Your task to perform on an android device: Find coffee shops on Maps Image 0: 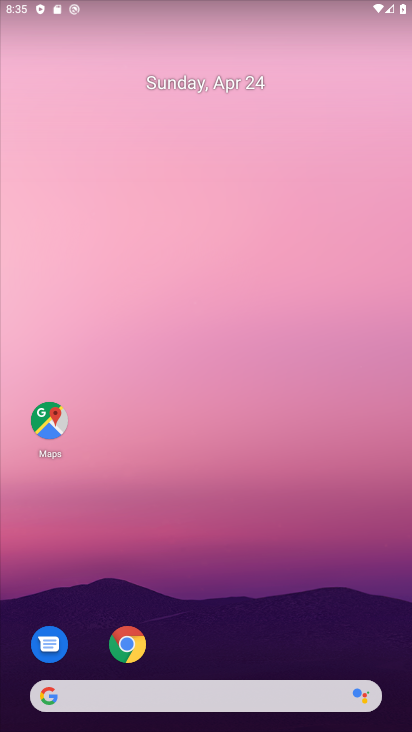
Step 0: click (46, 412)
Your task to perform on an android device: Find coffee shops on Maps Image 1: 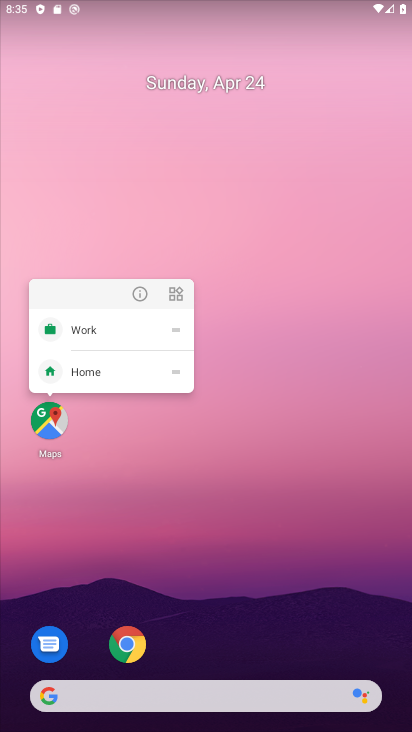
Step 1: click (61, 413)
Your task to perform on an android device: Find coffee shops on Maps Image 2: 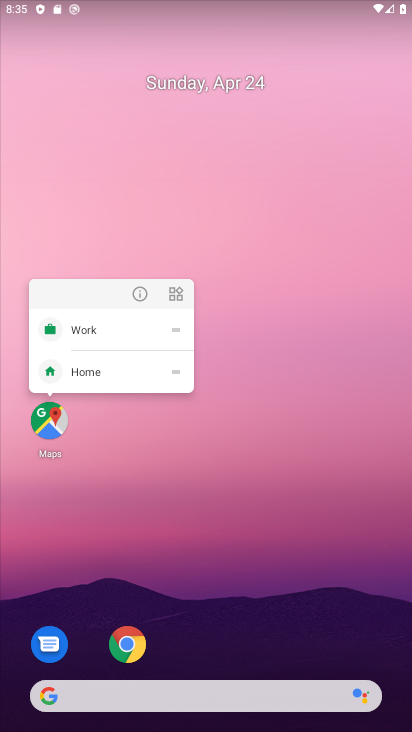
Step 2: click (58, 440)
Your task to perform on an android device: Find coffee shops on Maps Image 3: 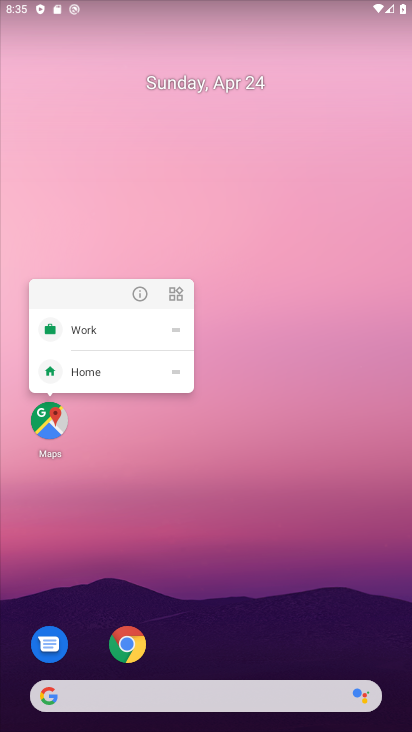
Step 3: click (52, 431)
Your task to perform on an android device: Find coffee shops on Maps Image 4: 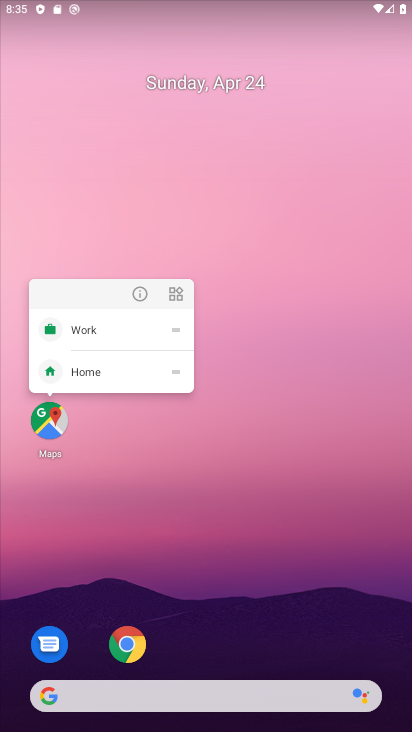
Step 4: click (53, 430)
Your task to perform on an android device: Find coffee shops on Maps Image 5: 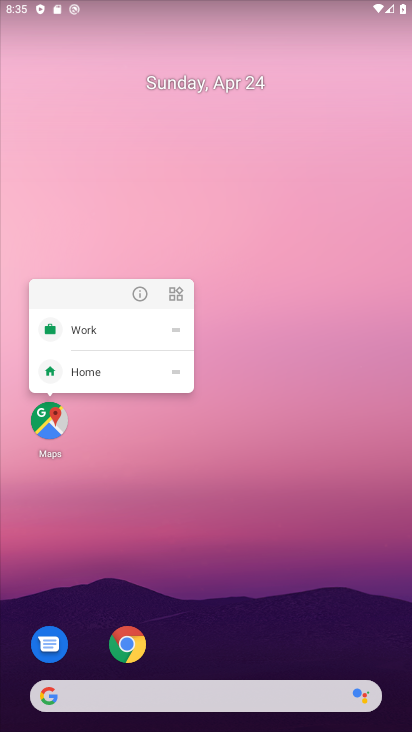
Step 5: click (57, 426)
Your task to perform on an android device: Find coffee shops on Maps Image 6: 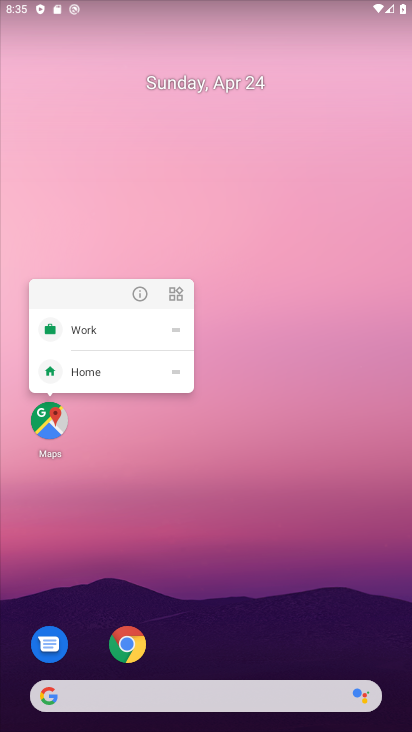
Step 6: drag from (251, 676) to (348, 87)
Your task to perform on an android device: Find coffee shops on Maps Image 7: 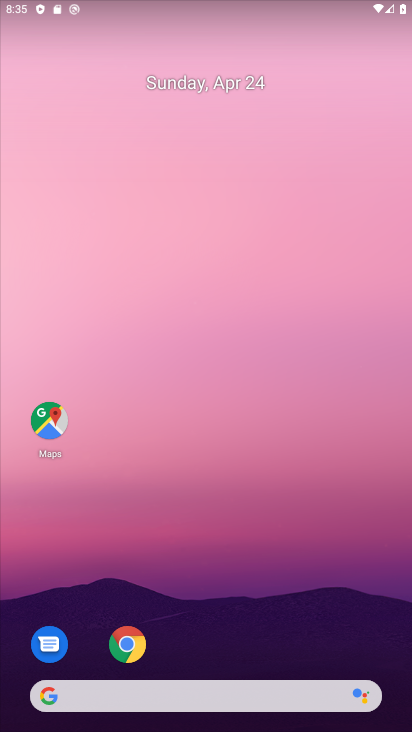
Step 7: drag from (218, 634) to (359, 38)
Your task to perform on an android device: Find coffee shops on Maps Image 8: 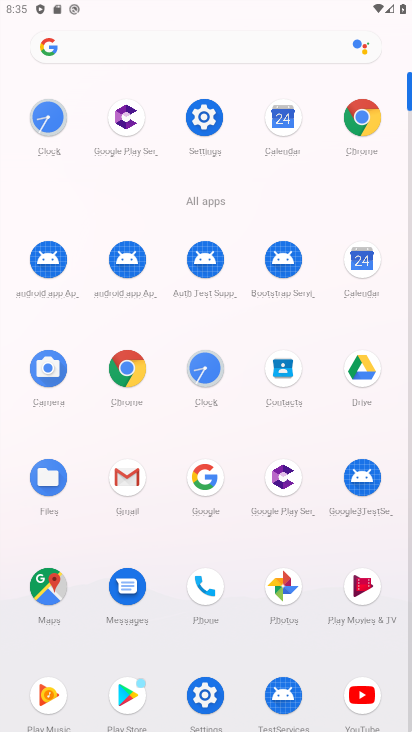
Step 8: click (47, 589)
Your task to perform on an android device: Find coffee shops on Maps Image 9: 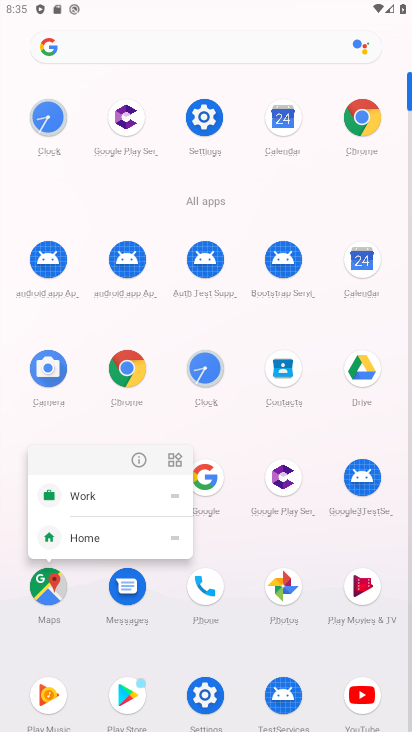
Step 9: click (51, 577)
Your task to perform on an android device: Find coffee shops on Maps Image 10: 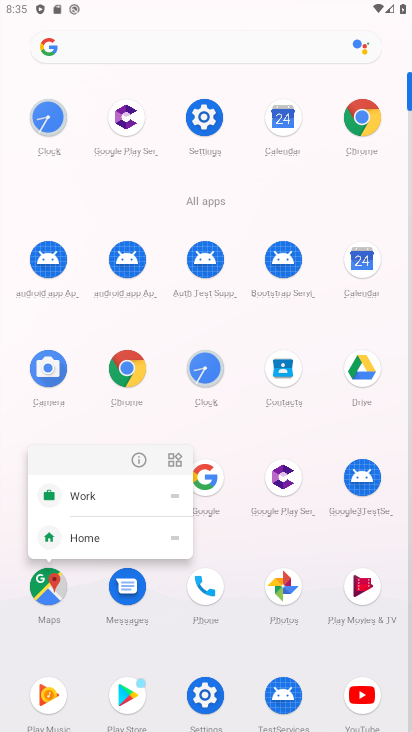
Step 10: click (55, 596)
Your task to perform on an android device: Find coffee shops on Maps Image 11: 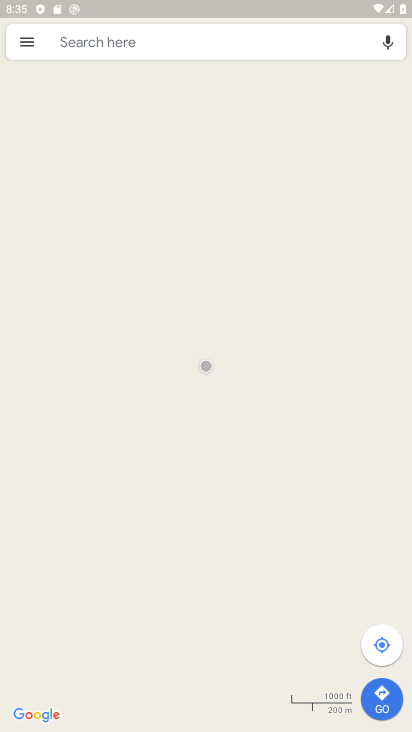
Step 11: click (237, 46)
Your task to perform on an android device: Find coffee shops on Maps Image 12: 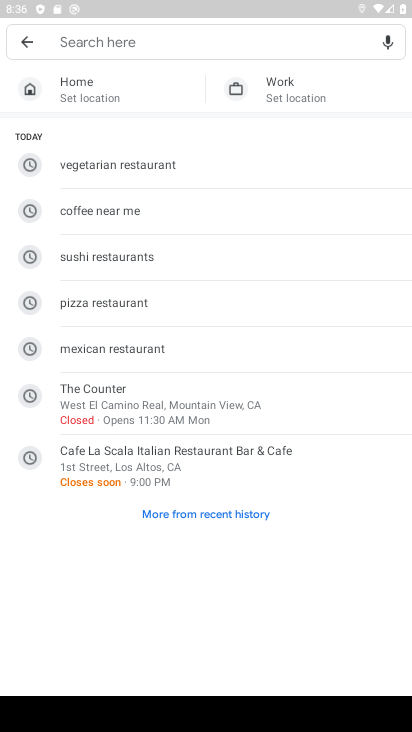
Step 12: type "Coffee shops on map "
Your task to perform on an android device: Find coffee shops on Maps Image 13: 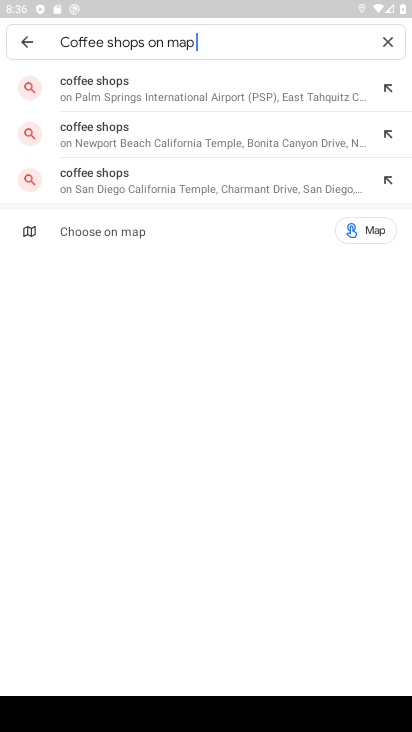
Step 13: click (154, 96)
Your task to perform on an android device: Find coffee shops on Maps Image 14: 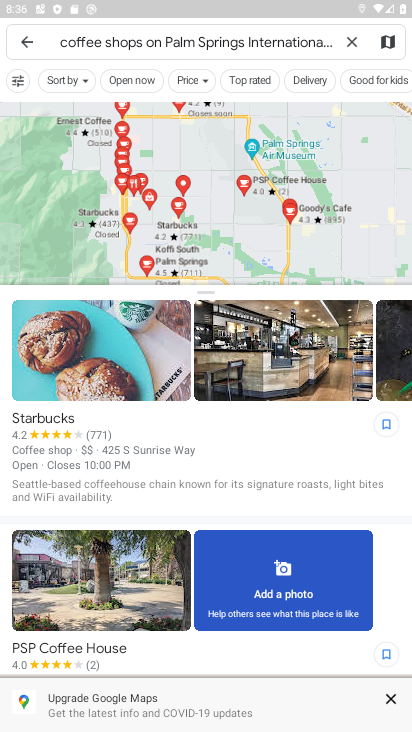
Step 14: task complete